Your task to perform on an android device: set default search engine in the chrome app Image 0: 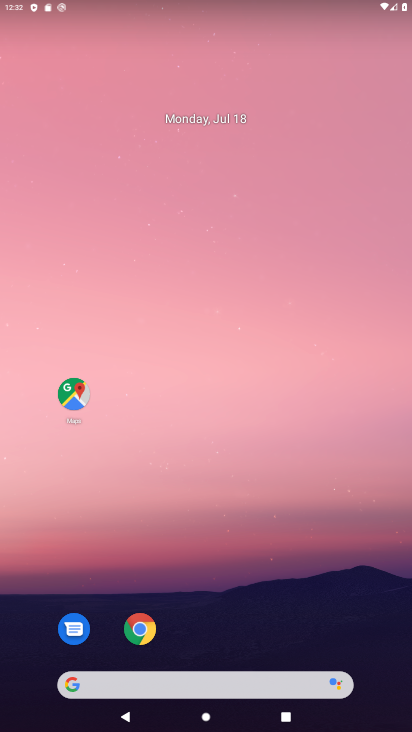
Step 0: click (146, 636)
Your task to perform on an android device: set default search engine in the chrome app Image 1: 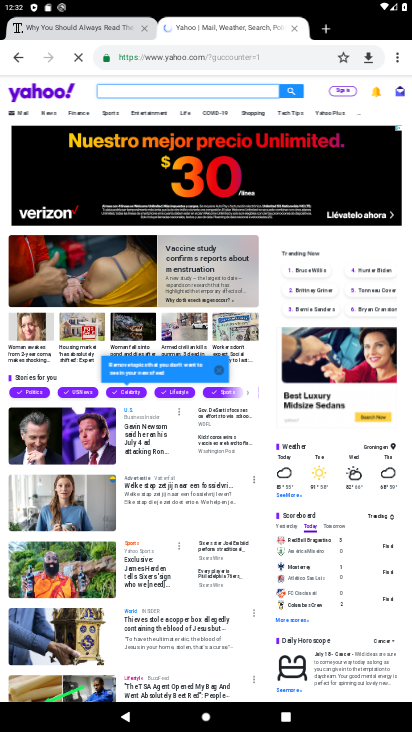
Step 1: click (400, 58)
Your task to perform on an android device: set default search engine in the chrome app Image 2: 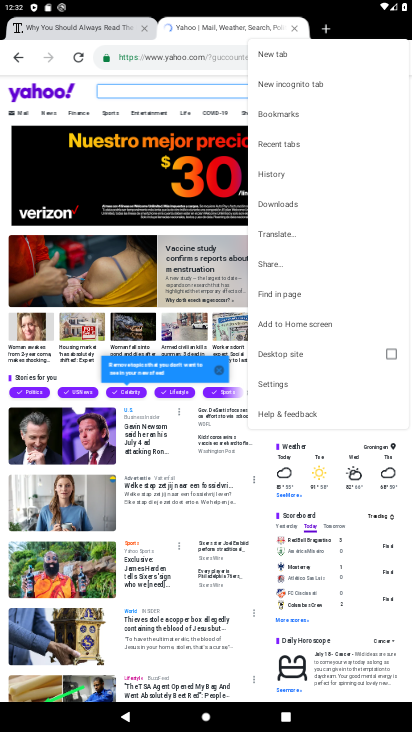
Step 2: click (287, 384)
Your task to perform on an android device: set default search engine in the chrome app Image 3: 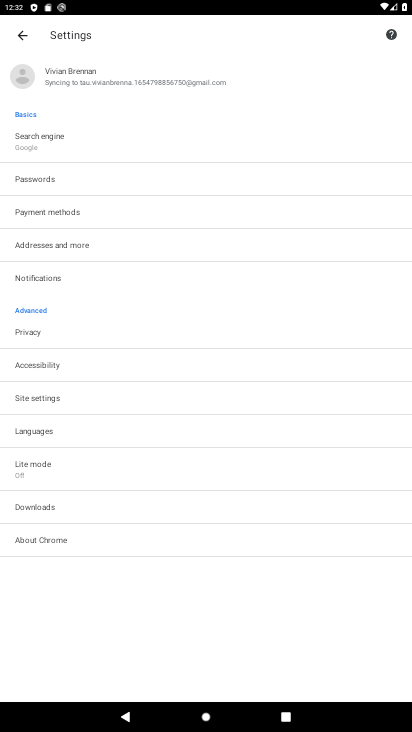
Step 3: click (34, 134)
Your task to perform on an android device: set default search engine in the chrome app Image 4: 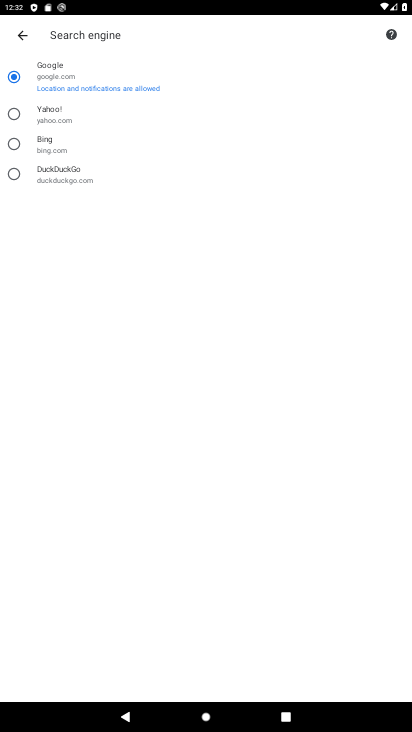
Step 4: click (16, 117)
Your task to perform on an android device: set default search engine in the chrome app Image 5: 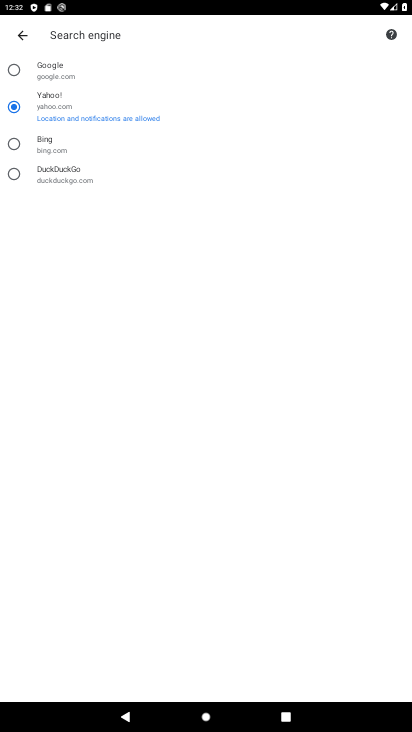
Step 5: task complete